Your task to perform on an android device: delete a single message in the gmail app Image 0: 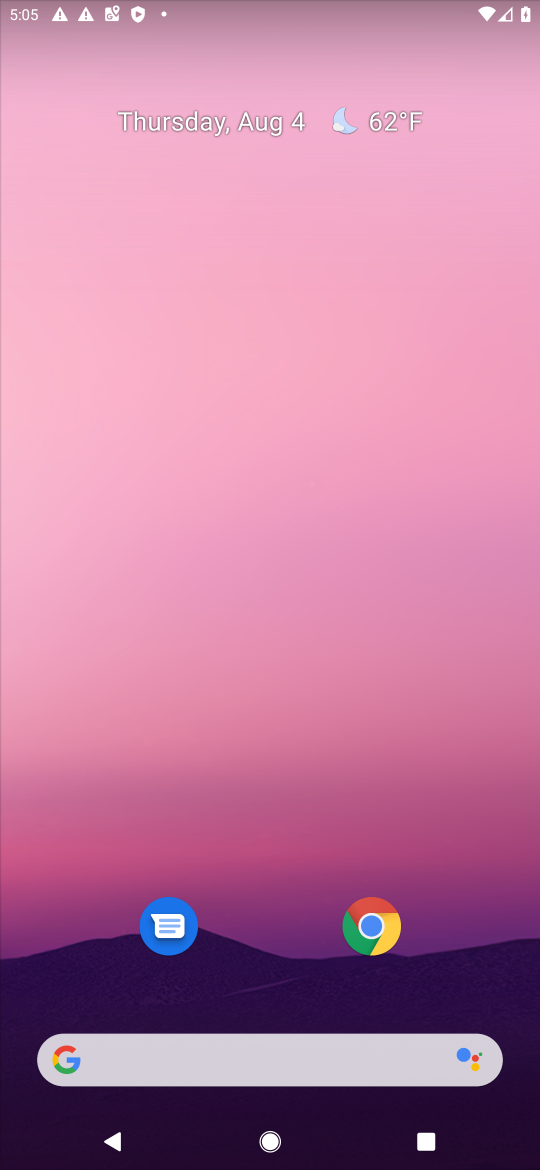
Step 0: drag from (269, 844) to (305, 361)
Your task to perform on an android device: delete a single message in the gmail app Image 1: 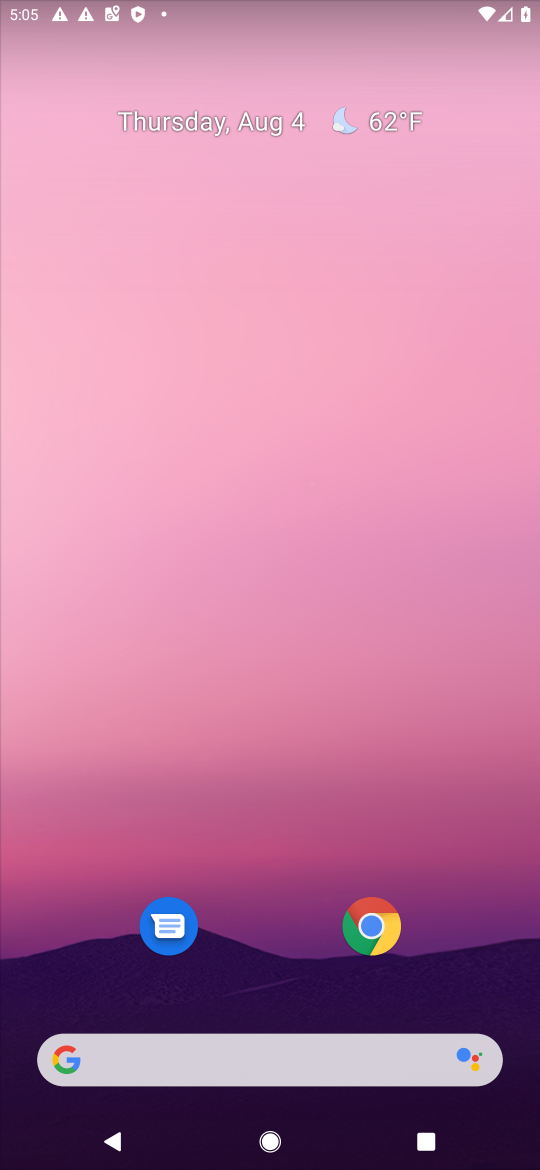
Step 1: drag from (287, 878) to (352, 168)
Your task to perform on an android device: delete a single message in the gmail app Image 2: 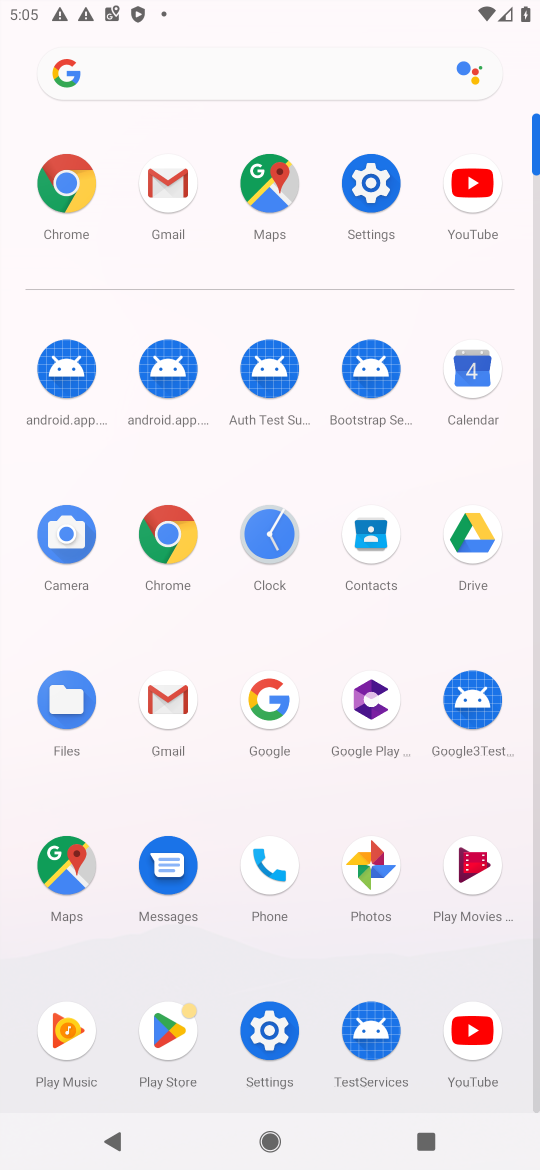
Step 2: click (164, 203)
Your task to perform on an android device: delete a single message in the gmail app Image 3: 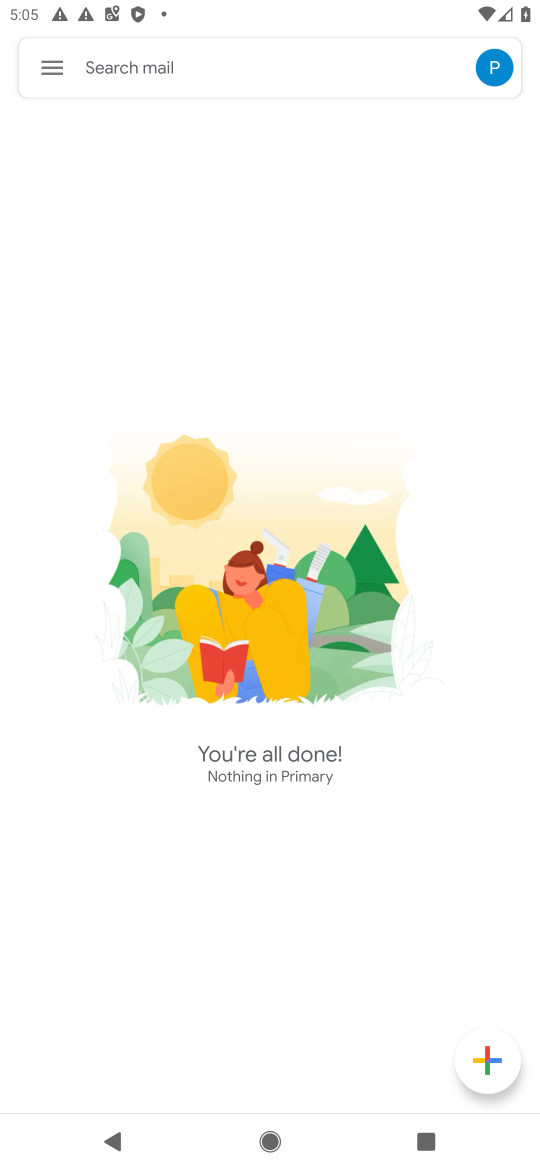
Step 3: click (54, 62)
Your task to perform on an android device: delete a single message in the gmail app Image 4: 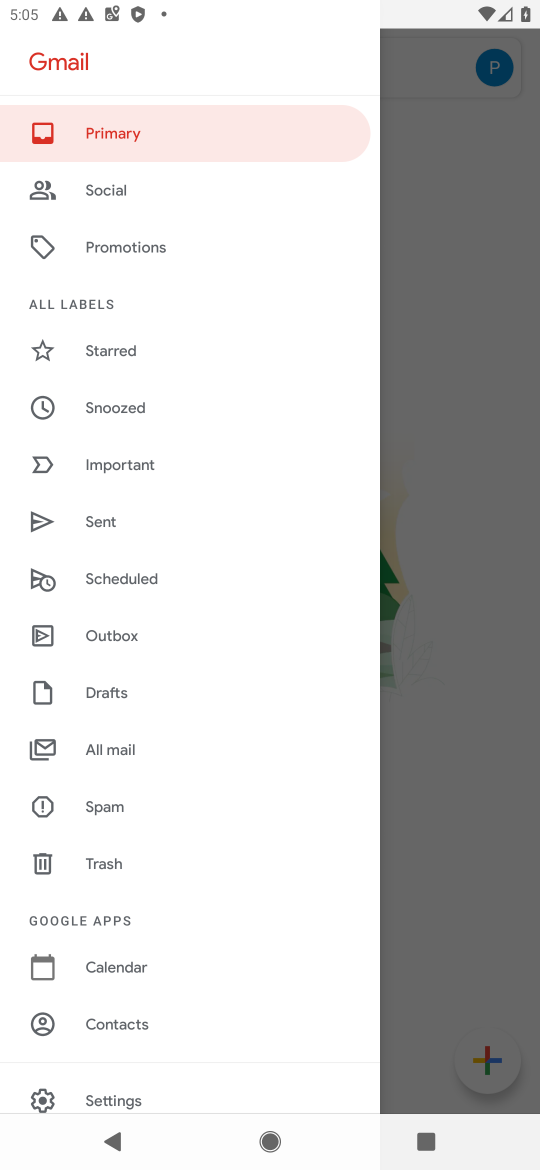
Step 4: click (106, 756)
Your task to perform on an android device: delete a single message in the gmail app Image 5: 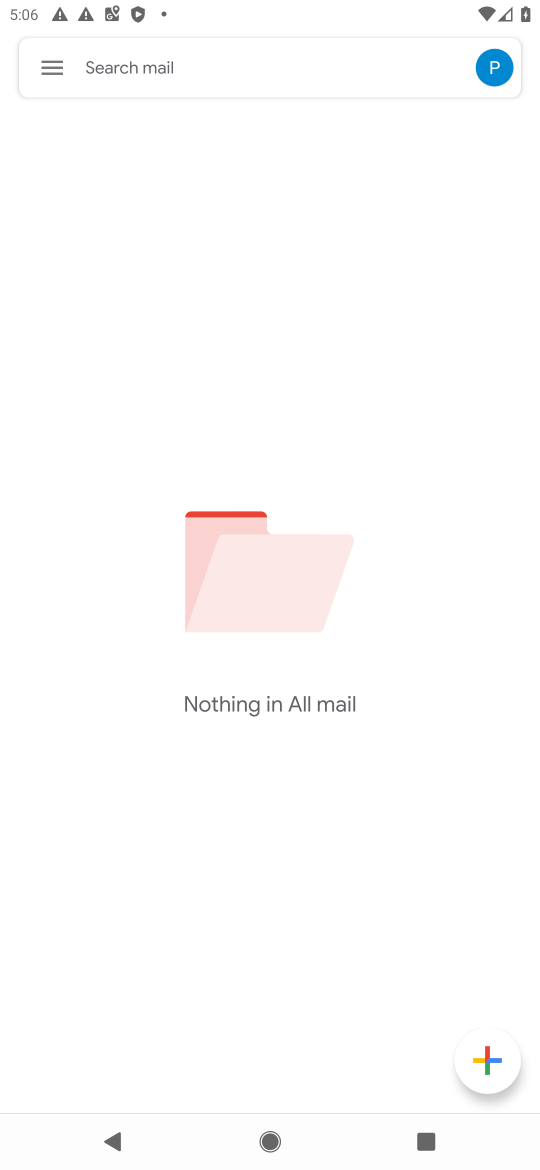
Step 5: task complete